Your task to perform on an android device: Go to network settings Image 0: 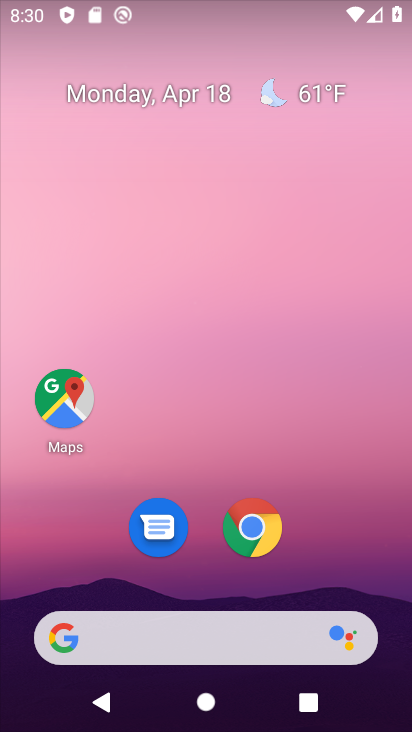
Step 0: drag from (267, 4) to (311, 665)
Your task to perform on an android device: Go to network settings Image 1: 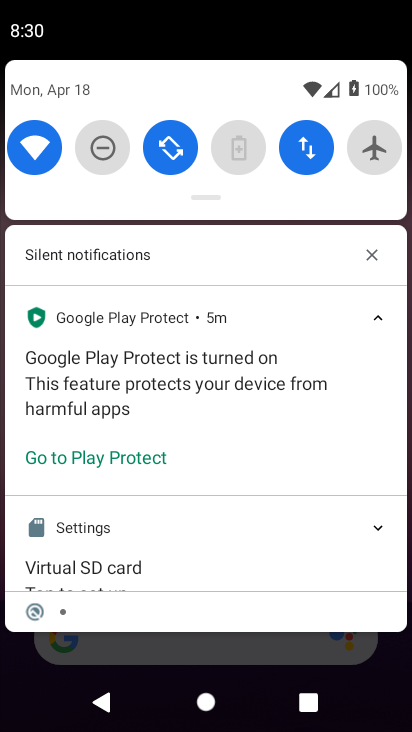
Step 1: drag from (218, 83) to (209, 701)
Your task to perform on an android device: Go to network settings Image 2: 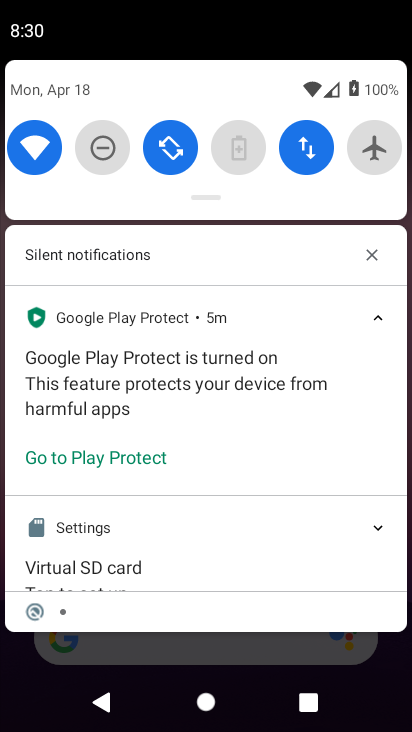
Step 2: drag from (109, 298) to (136, 718)
Your task to perform on an android device: Go to network settings Image 3: 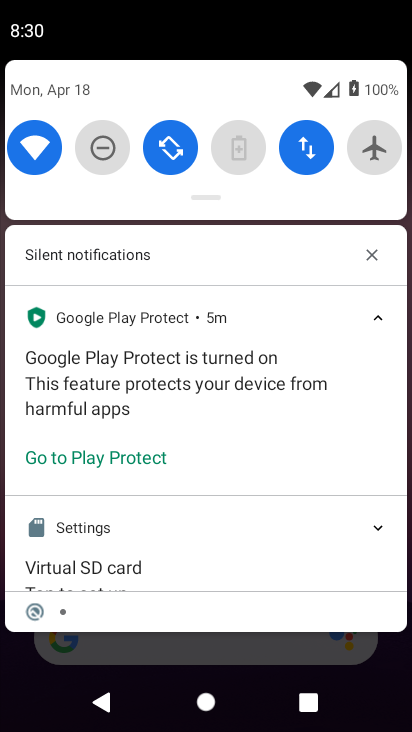
Step 3: drag from (210, 68) to (164, 678)
Your task to perform on an android device: Go to network settings Image 4: 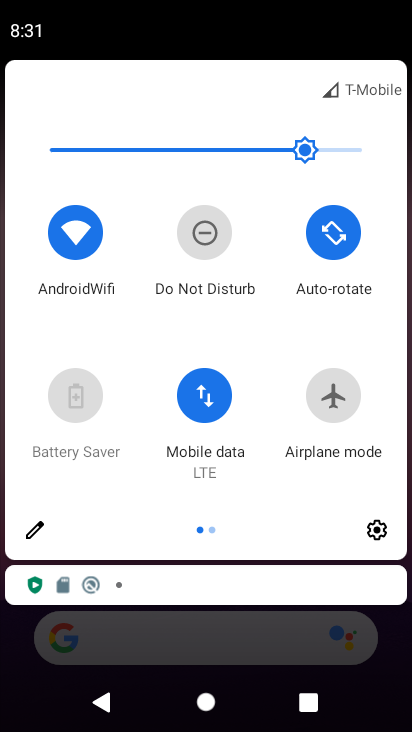
Step 4: click (379, 524)
Your task to perform on an android device: Go to network settings Image 5: 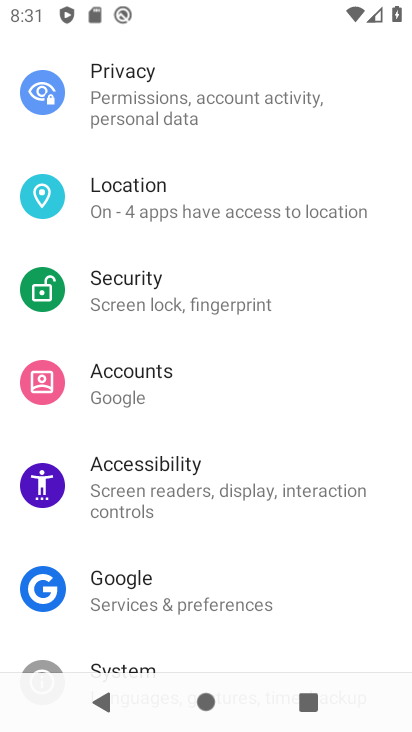
Step 5: drag from (232, 67) to (235, 720)
Your task to perform on an android device: Go to network settings Image 6: 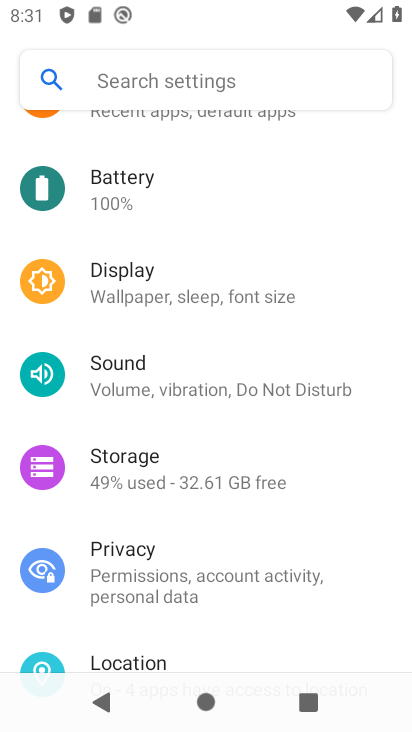
Step 6: drag from (274, 169) to (316, 668)
Your task to perform on an android device: Go to network settings Image 7: 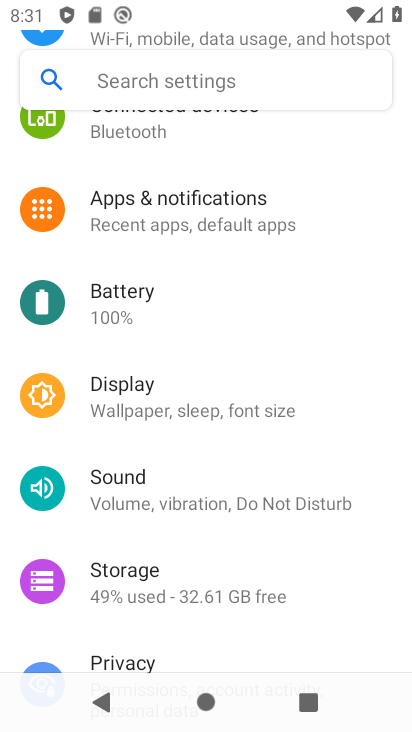
Step 7: drag from (268, 188) to (294, 705)
Your task to perform on an android device: Go to network settings Image 8: 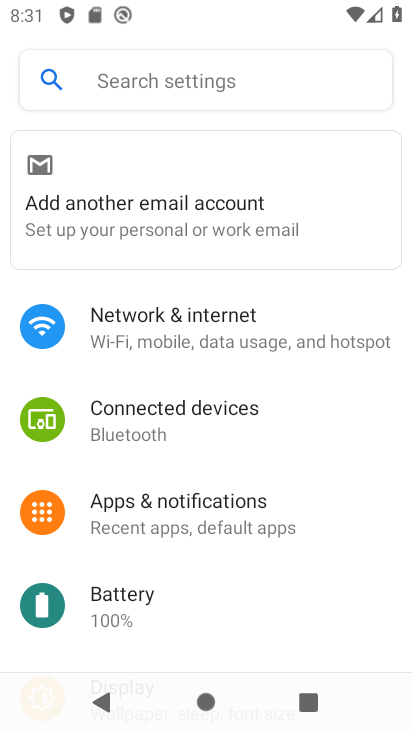
Step 8: click (166, 325)
Your task to perform on an android device: Go to network settings Image 9: 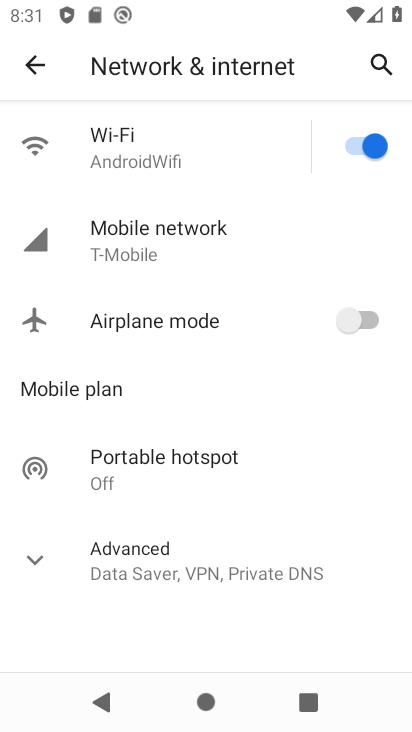
Step 9: click (158, 246)
Your task to perform on an android device: Go to network settings Image 10: 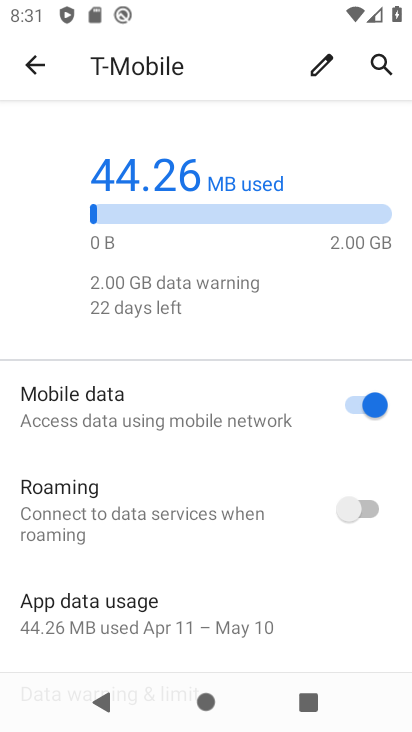
Step 10: task complete